Your task to perform on an android device: What is the news today? Image 0: 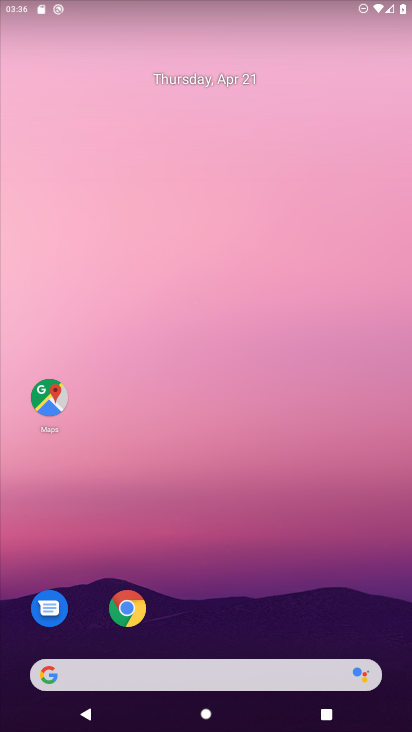
Step 0: click (262, 221)
Your task to perform on an android device: What is the news today? Image 1: 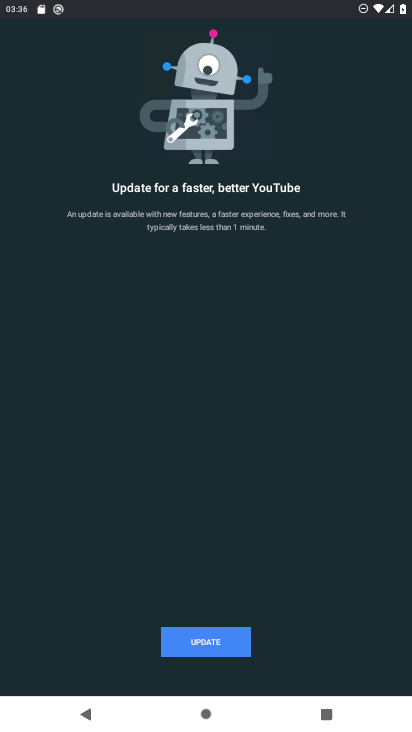
Step 1: press home button
Your task to perform on an android device: What is the news today? Image 2: 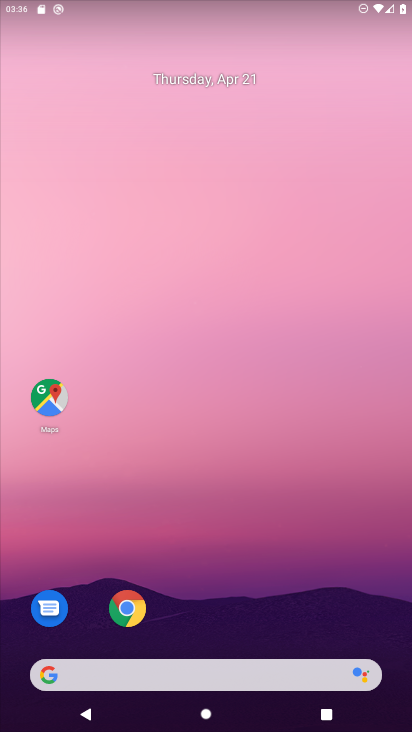
Step 2: drag from (257, 414) to (242, 213)
Your task to perform on an android device: What is the news today? Image 3: 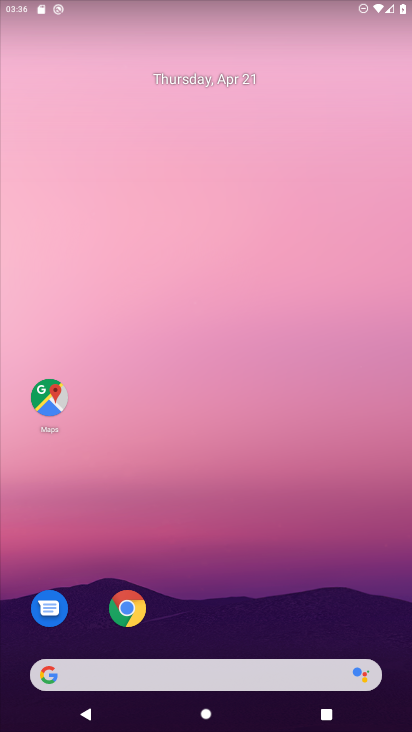
Step 3: drag from (234, 600) to (263, 204)
Your task to perform on an android device: What is the news today? Image 4: 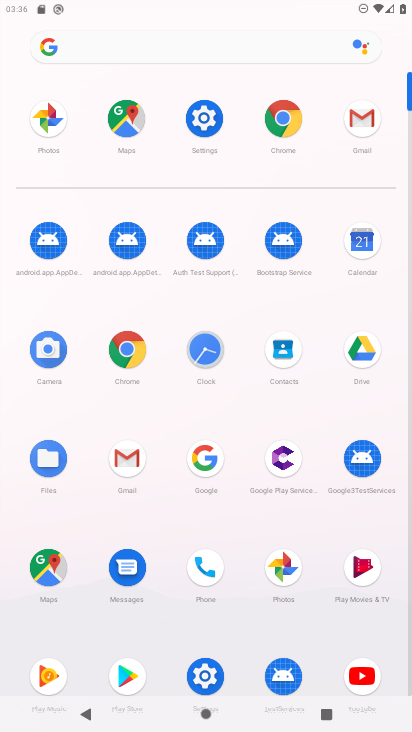
Step 4: click (131, 347)
Your task to perform on an android device: What is the news today? Image 5: 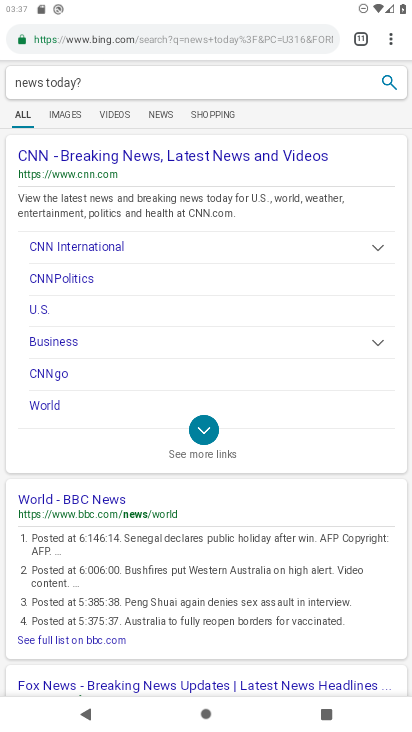
Step 5: click (382, 38)
Your task to perform on an android device: What is the news today? Image 6: 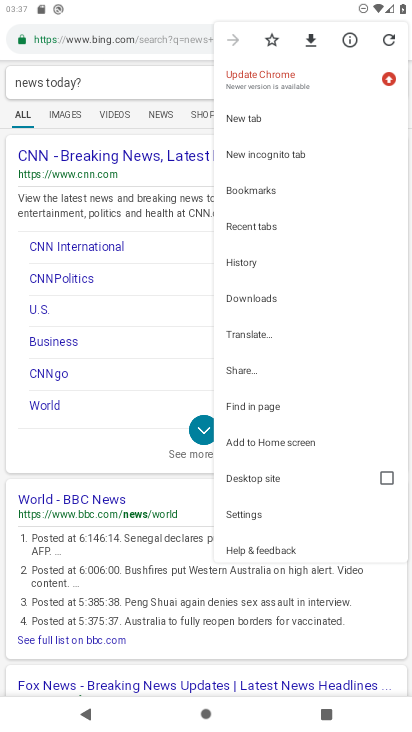
Step 6: click (307, 115)
Your task to perform on an android device: What is the news today? Image 7: 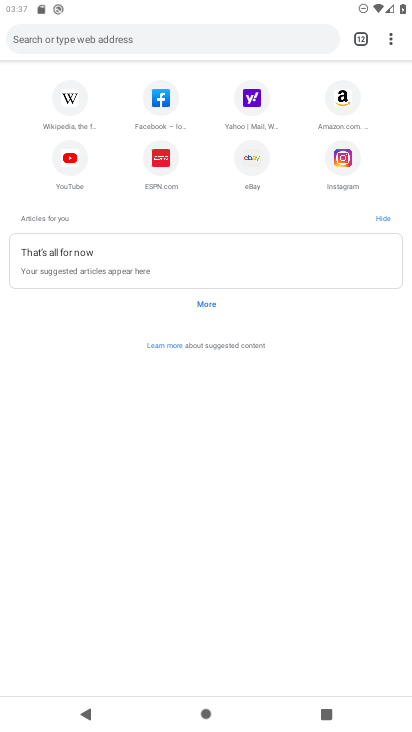
Step 7: click (130, 27)
Your task to perform on an android device: What is the news today? Image 8: 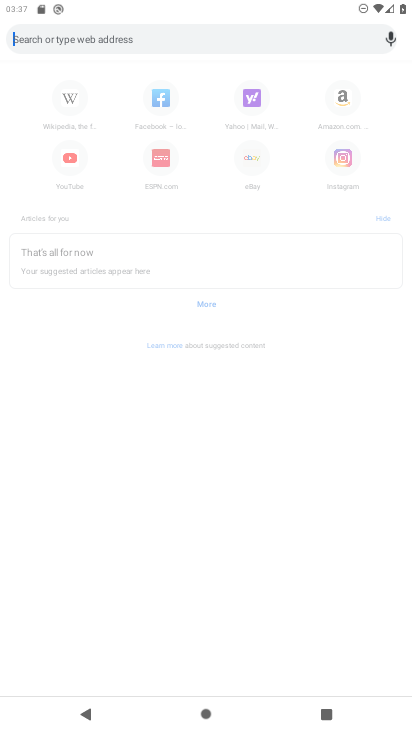
Step 8: click (133, 37)
Your task to perform on an android device: What is the news today? Image 9: 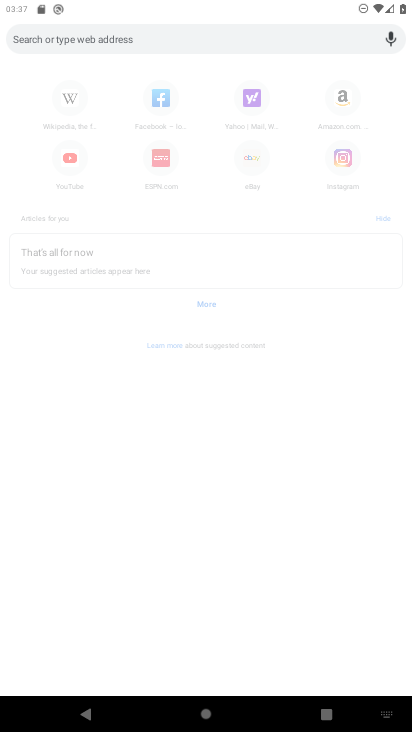
Step 9: type "What is the news today?"
Your task to perform on an android device: What is the news today? Image 10: 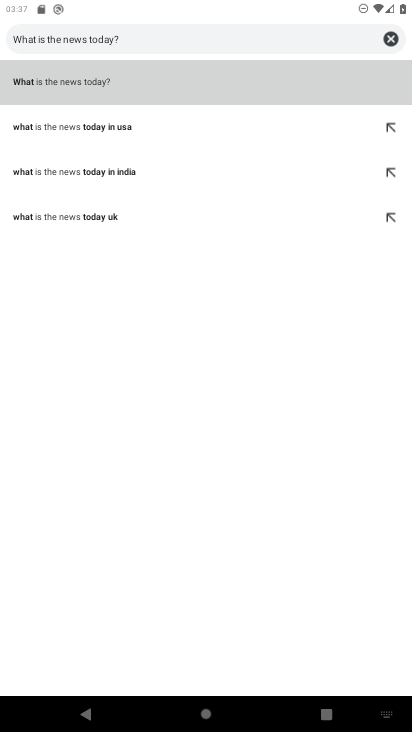
Step 10: click (129, 78)
Your task to perform on an android device: What is the news today? Image 11: 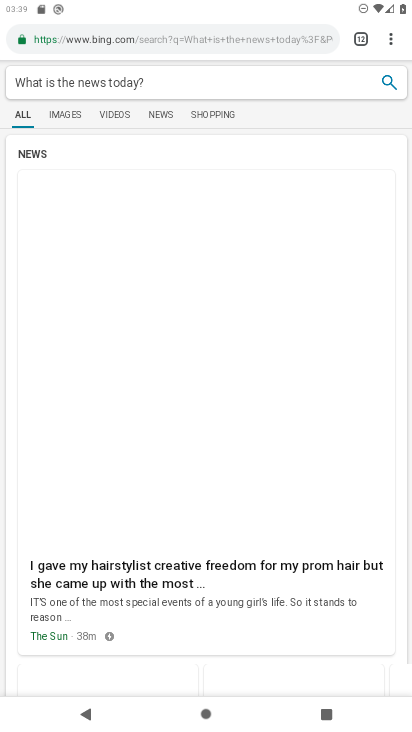
Step 11: task complete